Your task to perform on an android device: open a new tab in the chrome app Image 0: 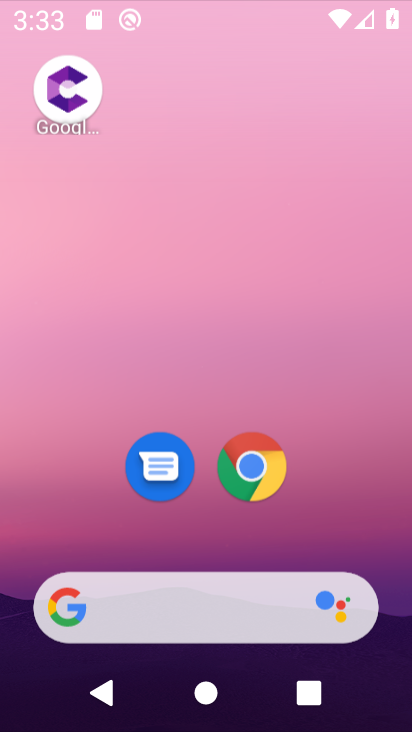
Step 0: click (252, 448)
Your task to perform on an android device: open a new tab in the chrome app Image 1: 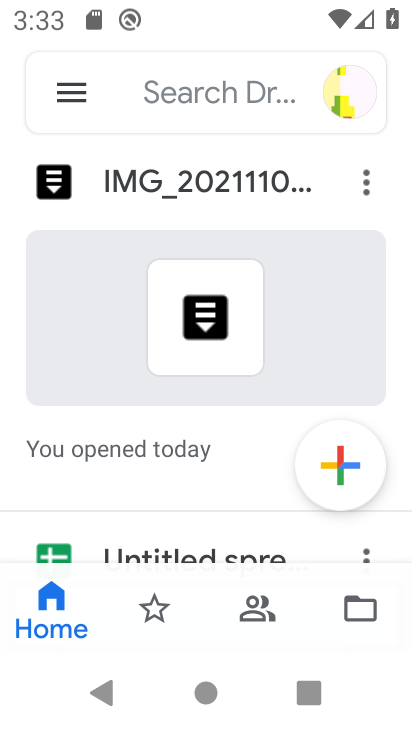
Step 1: press home button
Your task to perform on an android device: open a new tab in the chrome app Image 2: 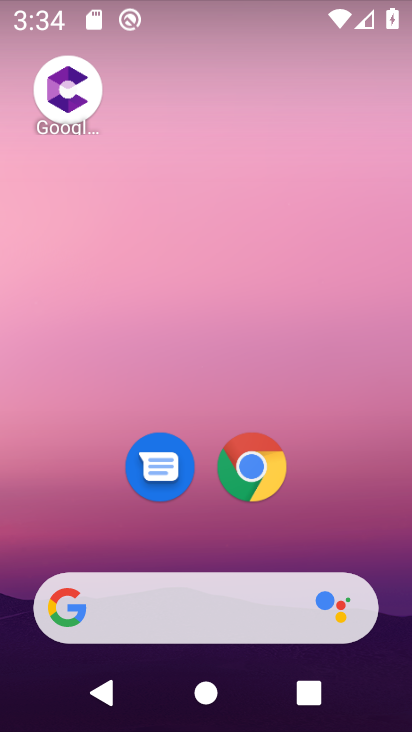
Step 2: click (272, 468)
Your task to perform on an android device: open a new tab in the chrome app Image 3: 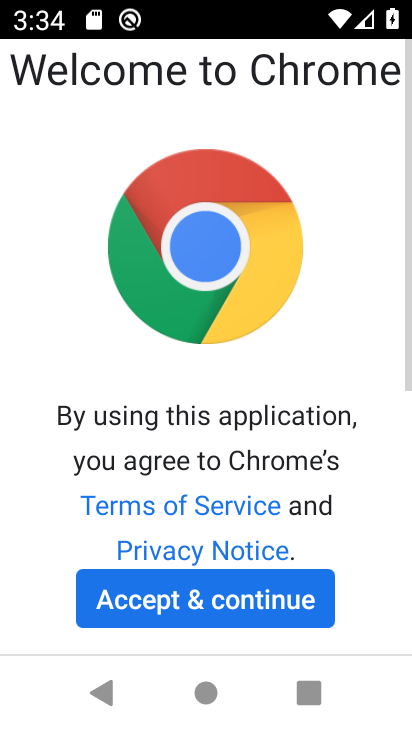
Step 3: click (238, 591)
Your task to perform on an android device: open a new tab in the chrome app Image 4: 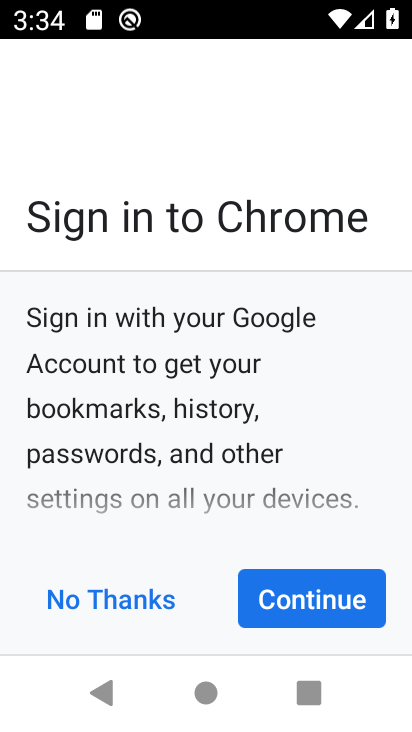
Step 4: click (255, 587)
Your task to perform on an android device: open a new tab in the chrome app Image 5: 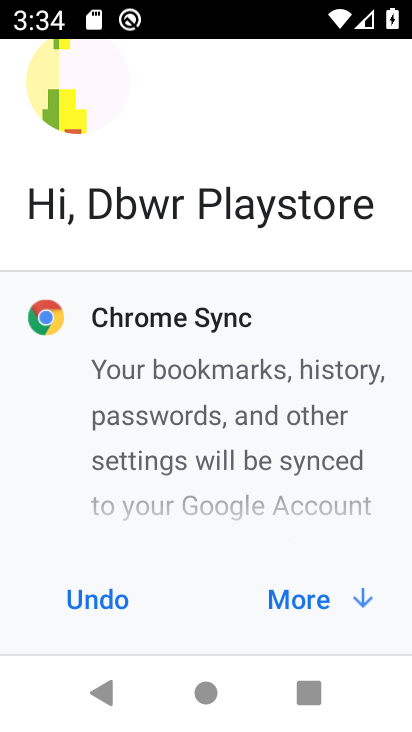
Step 5: click (322, 604)
Your task to perform on an android device: open a new tab in the chrome app Image 6: 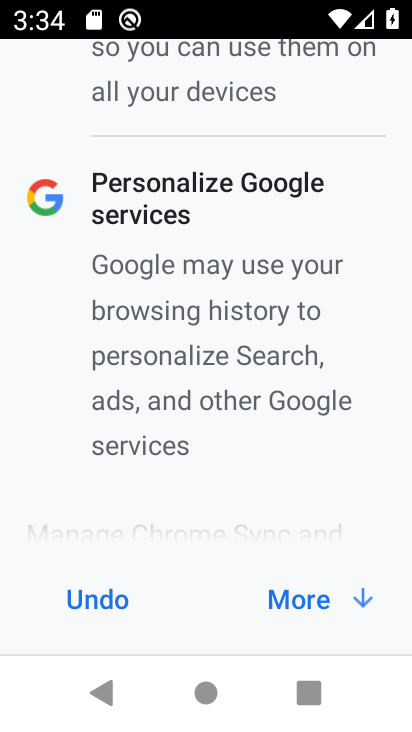
Step 6: click (322, 604)
Your task to perform on an android device: open a new tab in the chrome app Image 7: 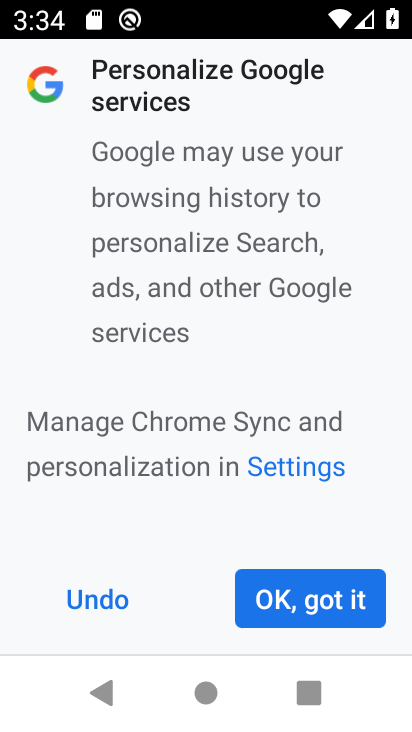
Step 7: click (322, 604)
Your task to perform on an android device: open a new tab in the chrome app Image 8: 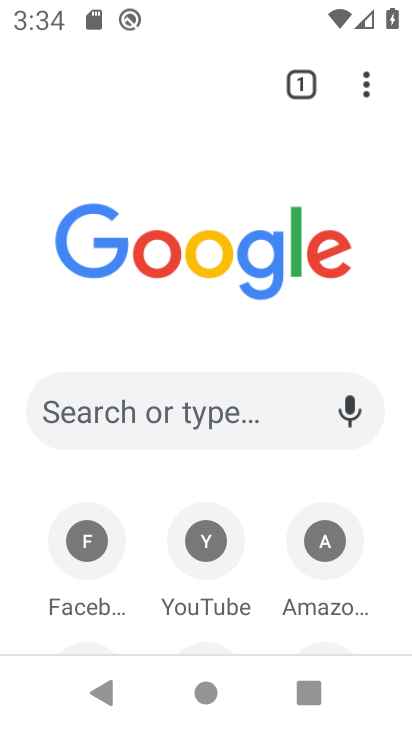
Step 8: click (379, 98)
Your task to perform on an android device: open a new tab in the chrome app Image 9: 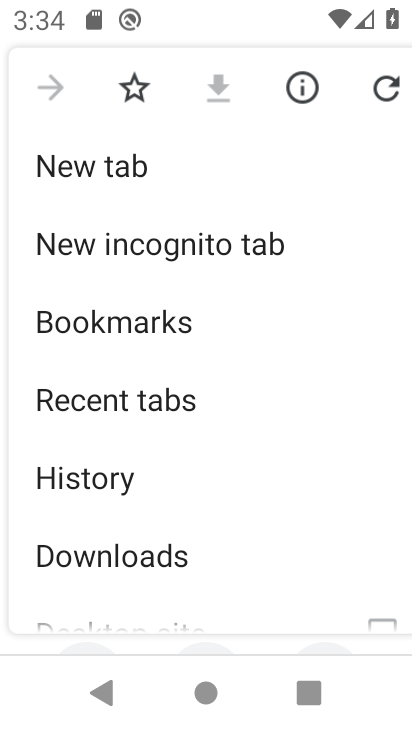
Step 9: click (120, 171)
Your task to perform on an android device: open a new tab in the chrome app Image 10: 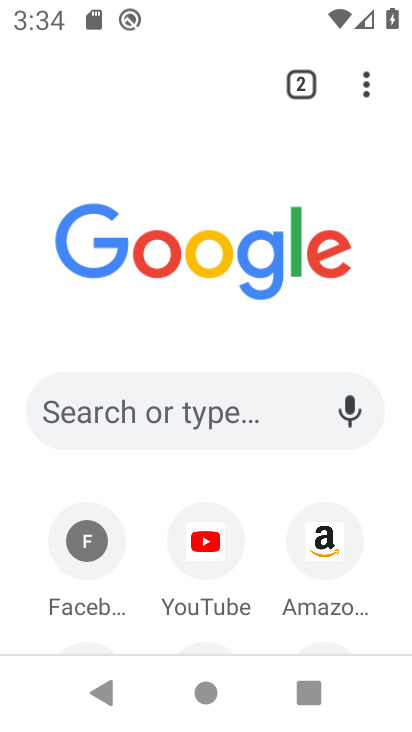
Step 10: task complete